Your task to perform on an android device: check the backup settings in the google photos Image 0: 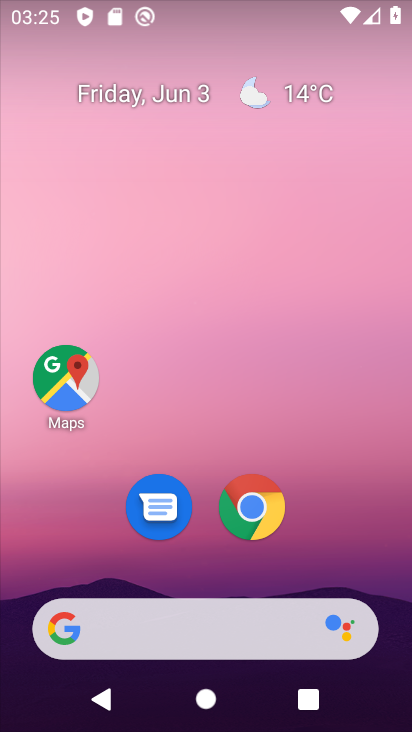
Step 0: drag from (310, 596) to (327, 139)
Your task to perform on an android device: check the backup settings in the google photos Image 1: 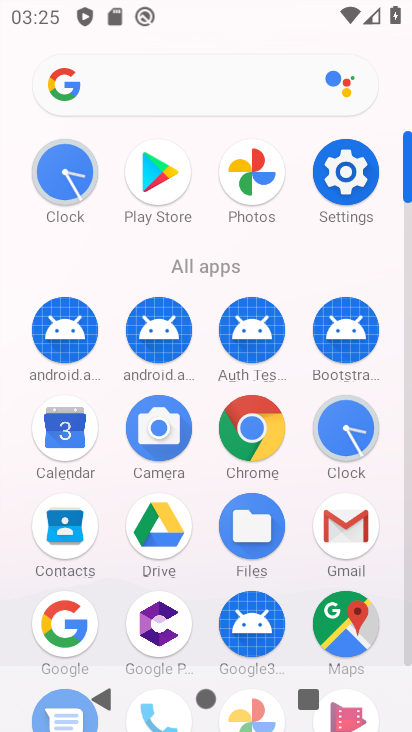
Step 1: click (247, 157)
Your task to perform on an android device: check the backup settings in the google photos Image 2: 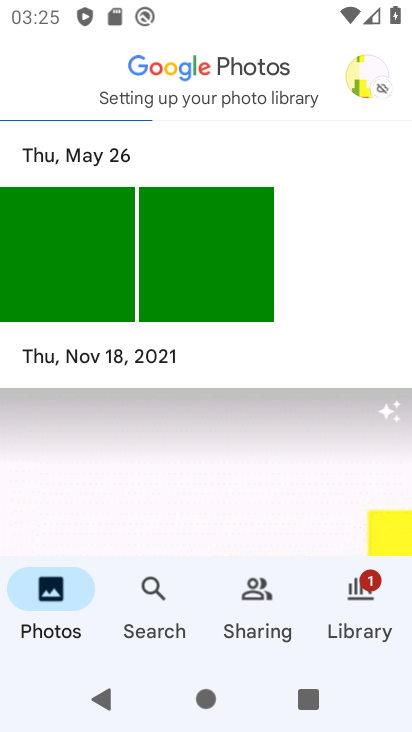
Step 2: click (362, 65)
Your task to perform on an android device: check the backup settings in the google photos Image 3: 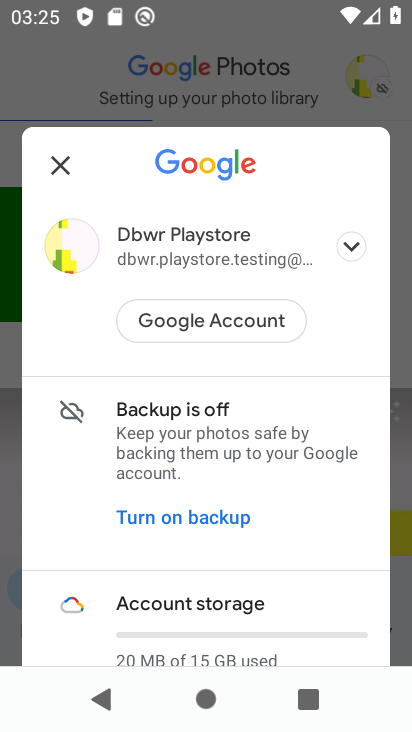
Step 3: drag from (308, 534) to (307, 383)
Your task to perform on an android device: check the backup settings in the google photos Image 4: 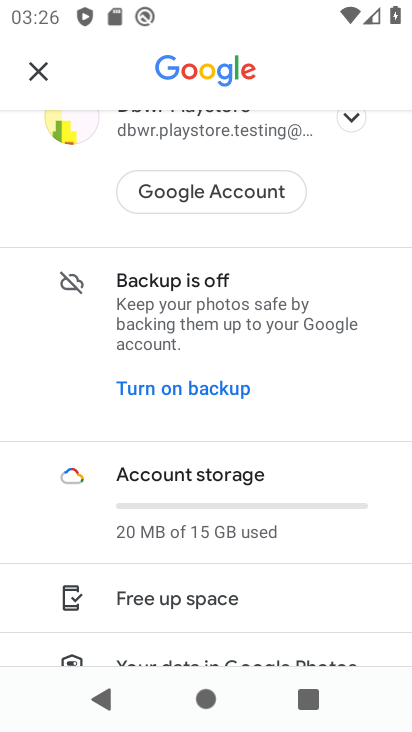
Step 4: click (183, 389)
Your task to perform on an android device: check the backup settings in the google photos Image 5: 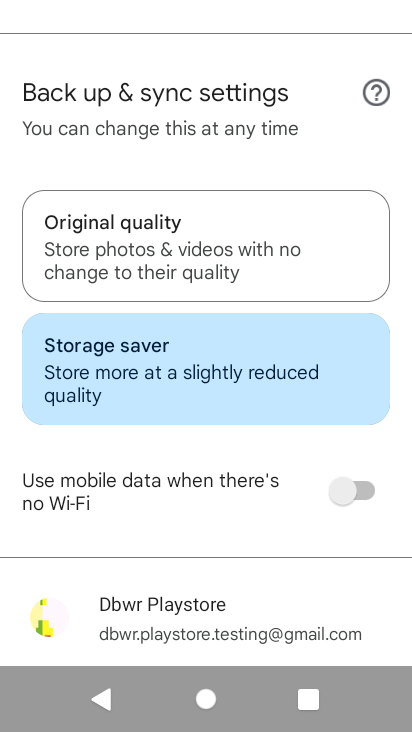
Step 5: task complete